Your task to perform on an android device: Open location settings Image 0: 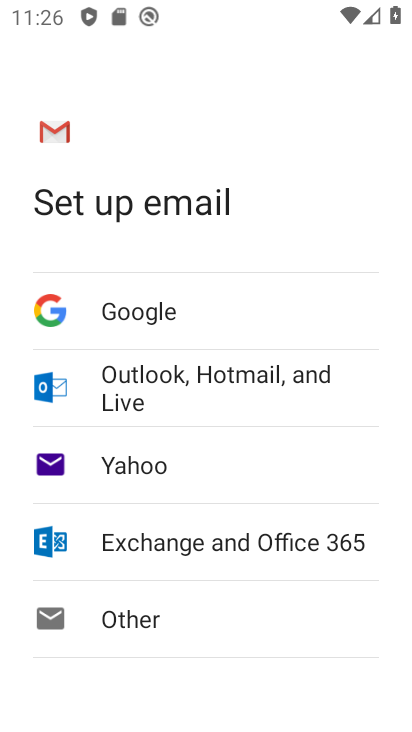
Step 0: press home button
Your task to perform on an android device: Open location settings Image 1: 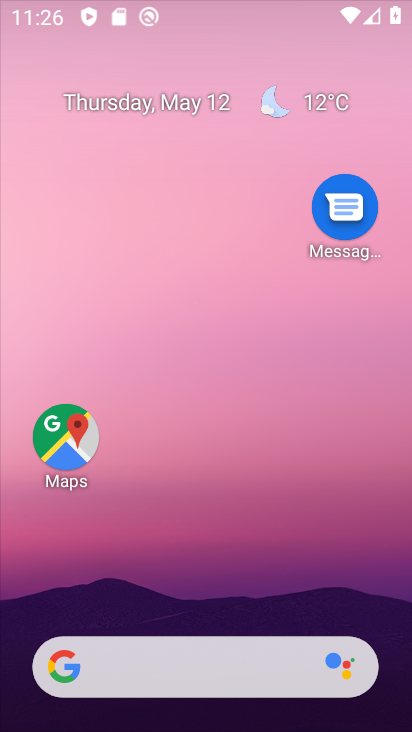
Step 1: drag from (285, 309) to (288, 34)
Your task to perform on an android device: Open location settings Image 2: 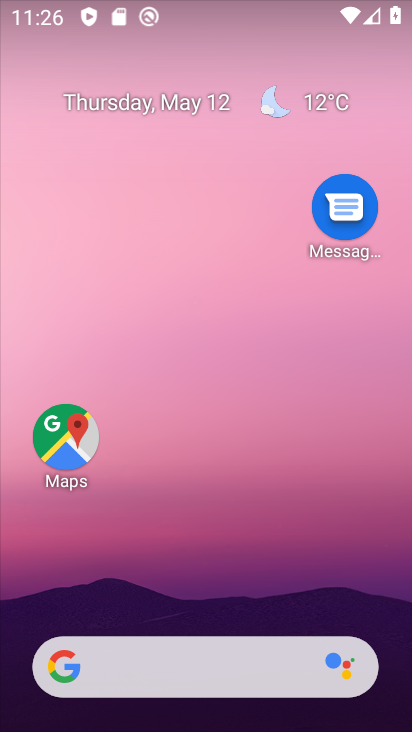
Step 2: drag from (303, 521) to (259, 88)
Your task to perform on an android device: Open location settings Image 3: 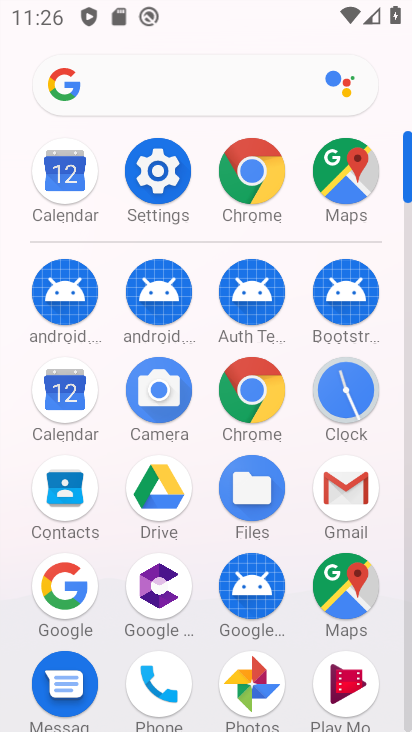
Step 3: click (149, 164)
Your task to perform on an android device: Open location settings Image 4: 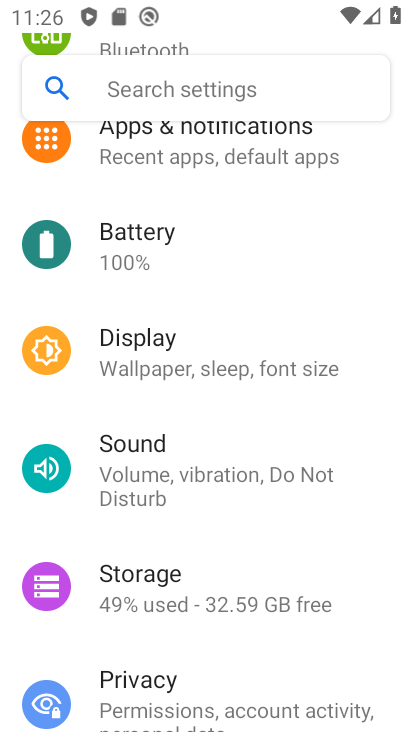
Step 4: drag from (221, 529) to (256, 170)
Your task to perform on an android device: Open location settings Image 5: 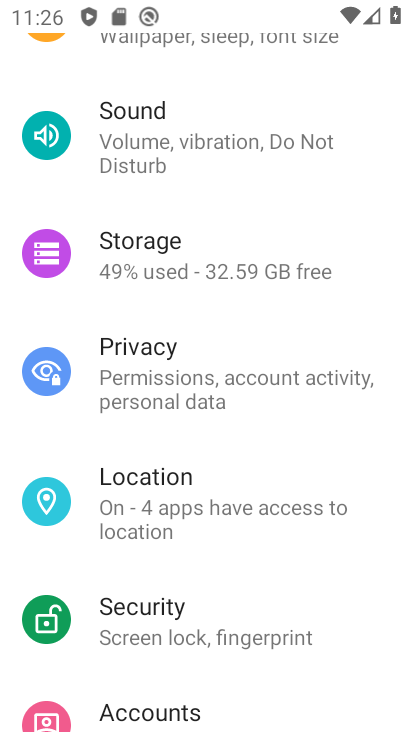
Step 5: click (186, 475)
Your task to perform on an android device: Open location settings Image 6: 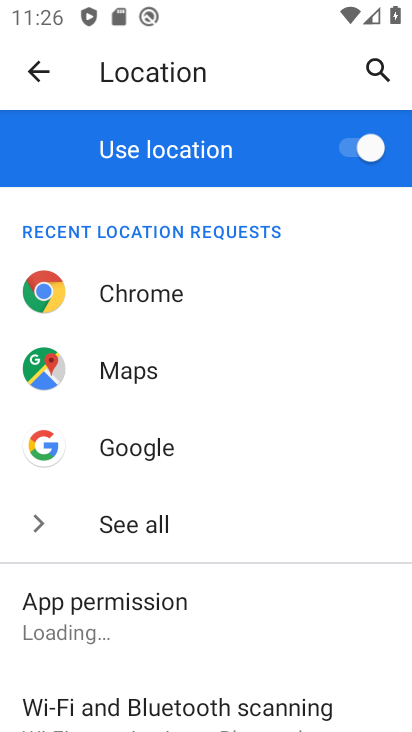
Step 6: task complete